Your task to perform on an android device: turn on location history Image 0: 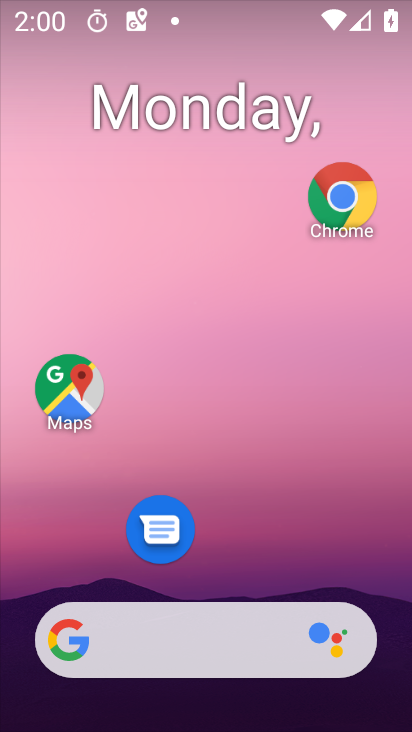
Step 0: drag from (256, 599) to (62, 198)
Your task to perform on an android device: turn on location history Image 1: 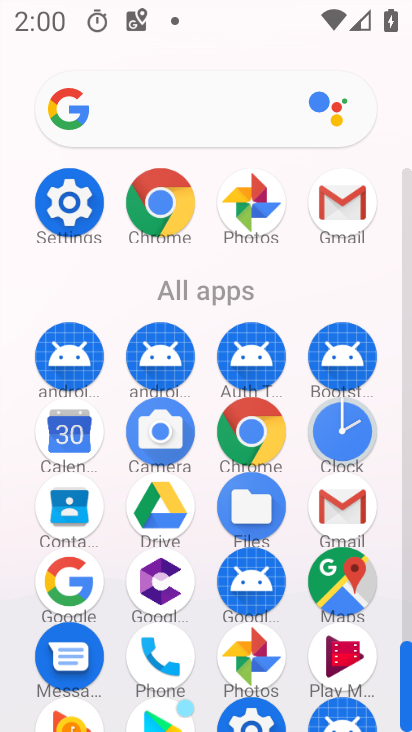
Step 1: click (69, 229)
Your task to perform on an android device: turn on location history Image 2: 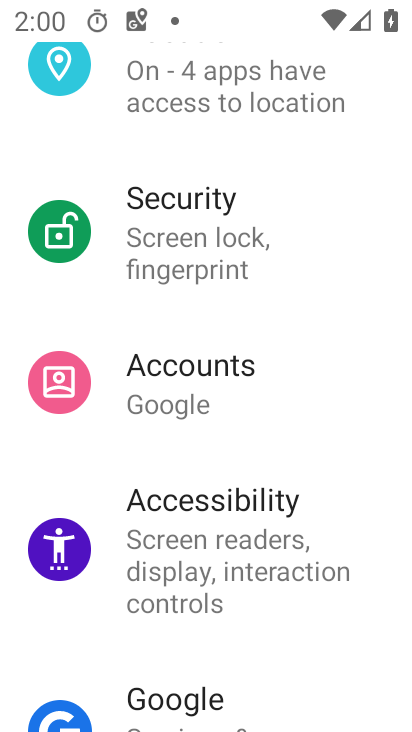
Step 2: drag from (207, 178) to (222, 647)
Your task to perform on an android device: turn on location history Image 3: 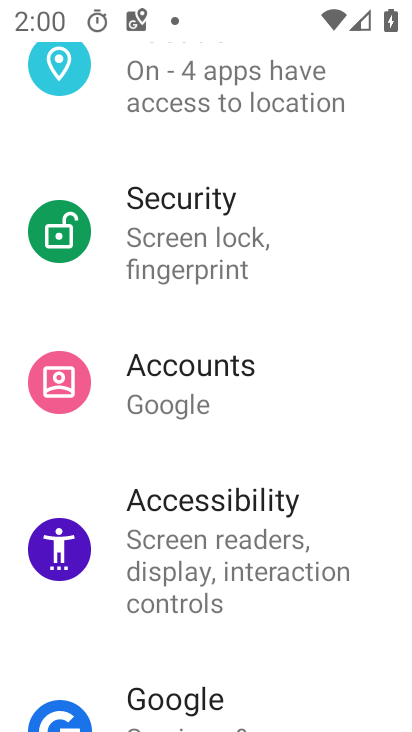
Step 3: drag from (218, 207) to (167, 706)
Your task to perform on an android device: turn on location history Image 4: 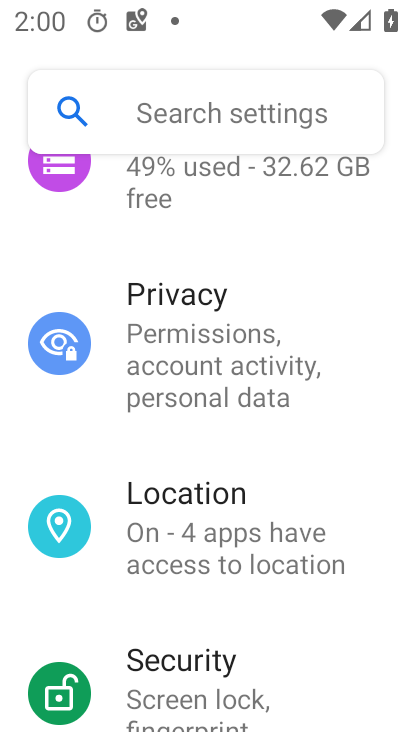
Step 4: click (164, 508)
Your task to perform on an android device: turn on location history Image 5: 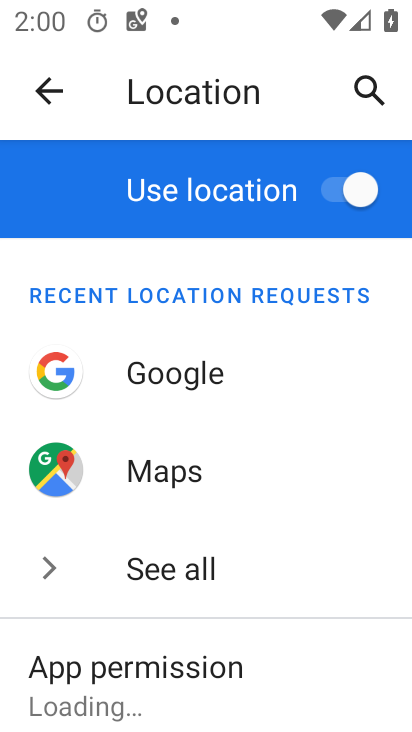
Step 5: drag from (264, 536) to (214, 129)
Your task to perform on an android device: turn on location history Image 6: 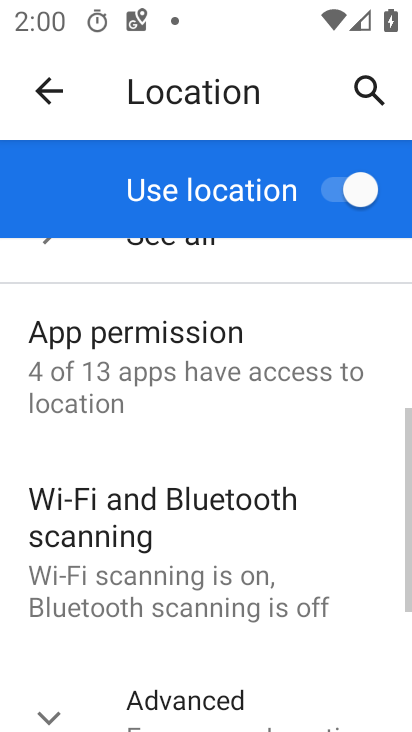
Step 6: click (225, 690)
Your task to perform on an android device: turn on location history Image 7: 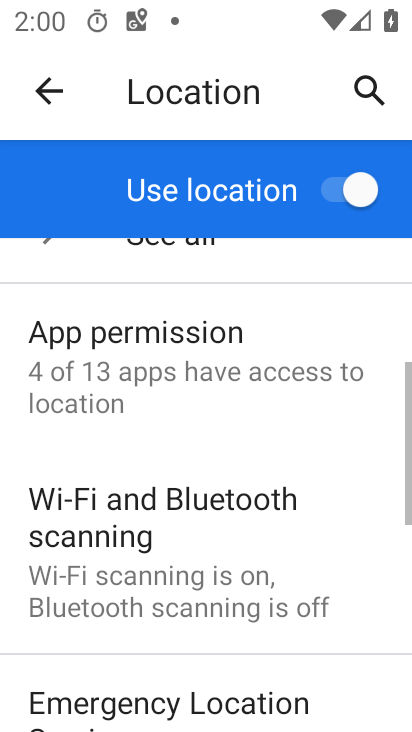
Step 7: drag from (225, 690) to (211, 101)
Your task to perform on an android device: turn on location history Image 8: 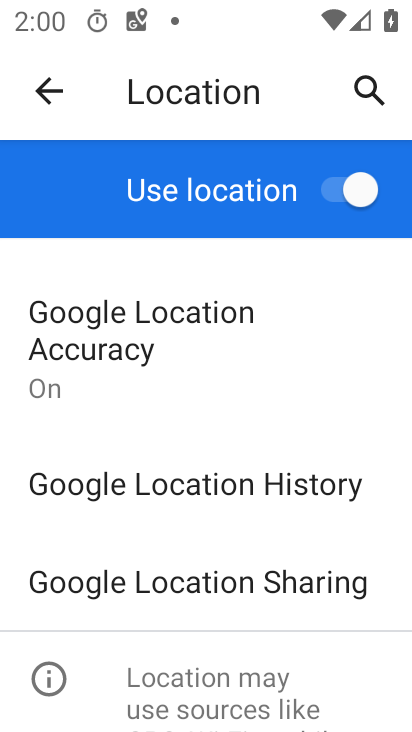
Step 8: click (260, 476)
Your task to perform on an android device: turn on location history Image 9: 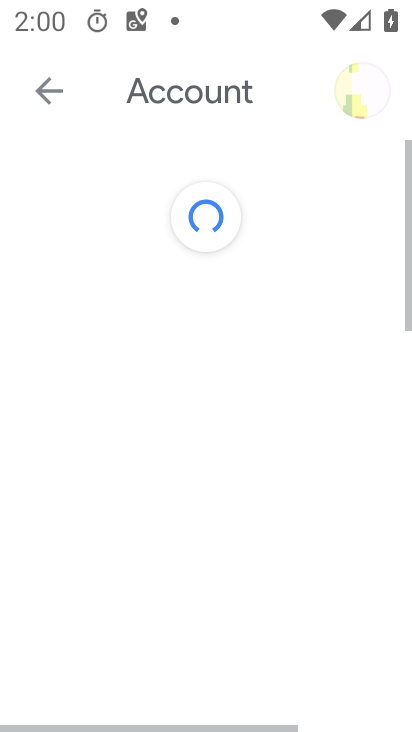
Step 9: task complete